Your task to perform on an android device: toggle priority inbox in the gmail app Image 0: 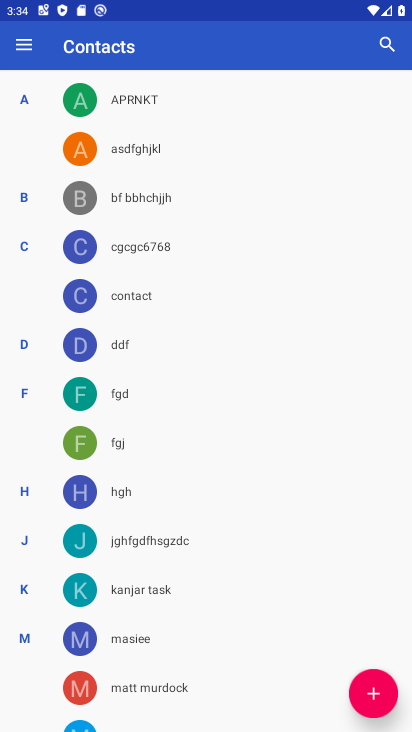
Step 0: press home button
Your task to perform on an android device: toggle priority inbox in the gmail app Image 1: 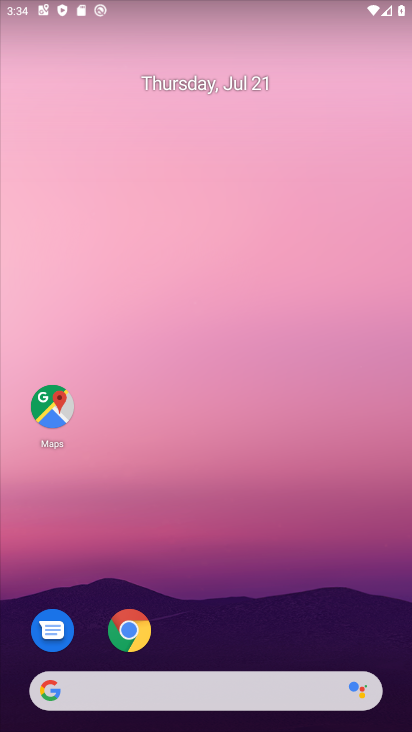
Step 1: drag from (223, 668) to (211, 101)
Your task to perform on an android device: toggle priority inbox in the gmail app Image 2: 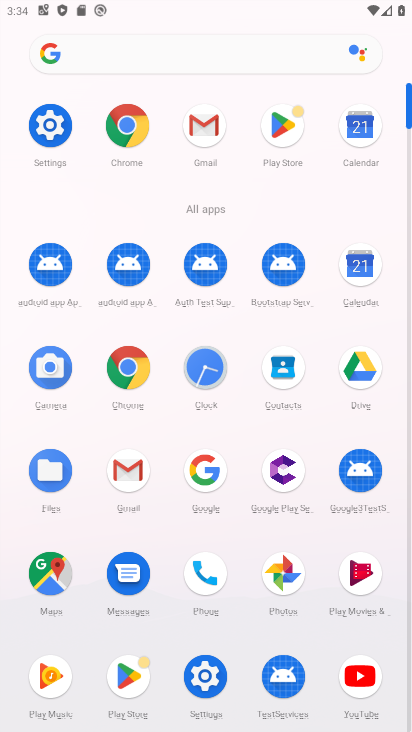
Step 2: click (138, 465)
Your task to perform on an android device: toggle priority inbox in the gmail app Image 3: 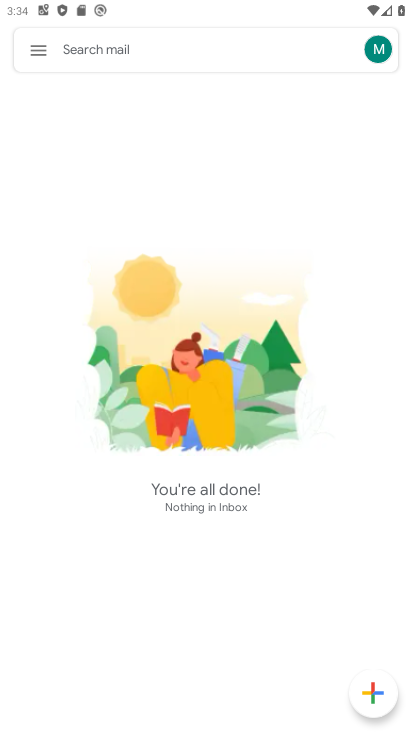
Step 3: click (33, 46)
Your task to perform on an android device: toggle priority inbox in the gmail app Image 4: 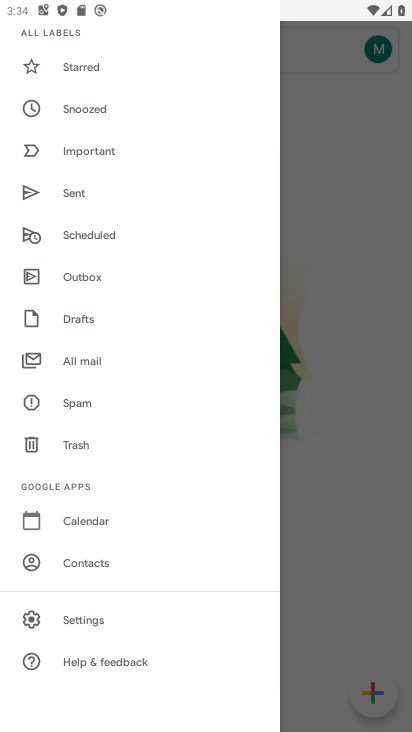
Step 4: click (71, 615)
Your task to perform on an android device: toggle priority inbox in the gmail app Image 5: 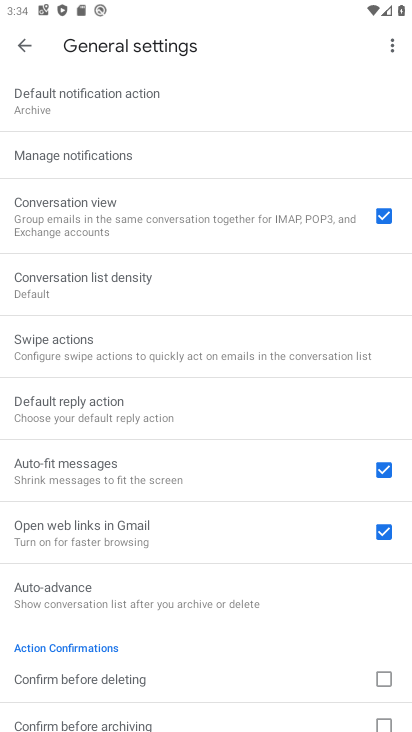
Step 5: drag from (154, 441) to (136, 107)
Your task to perform on an android device: toggle priority inbox in the gmail app Image 6: 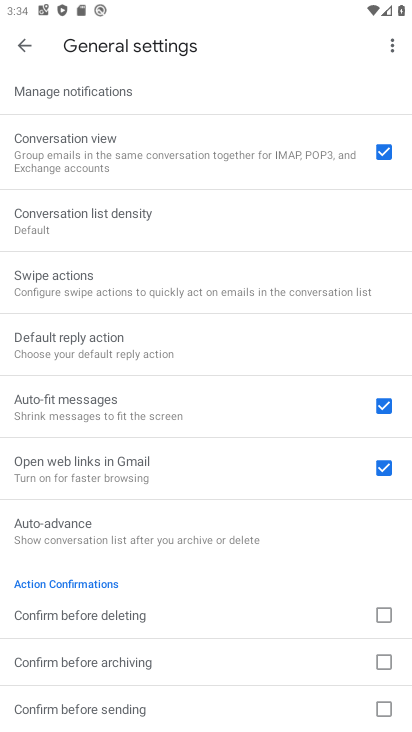
Step 6: click (20, 41)
Your task to perform on an android device: toggle priority inbox in the gmail app Image 7: 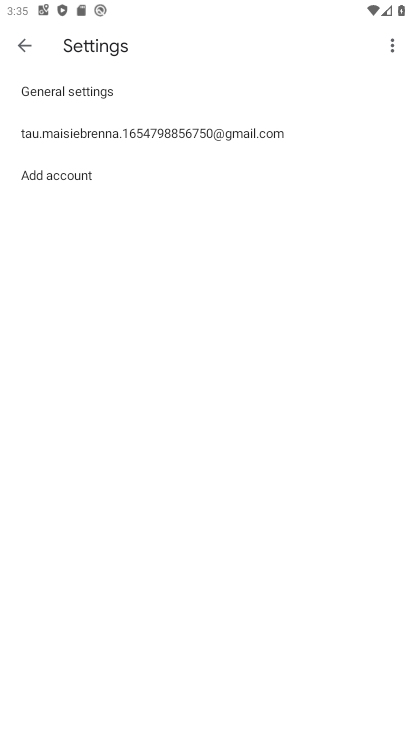
Step 7: click (47, 125)
Your task to perform on an android device: toggle priority inbox in the gmail app Image 8: 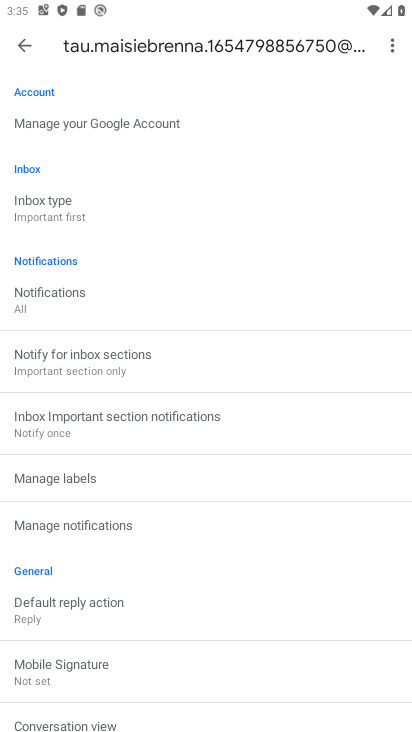
Step 8: click (65, 209)
Your task to perform on an android device: toggle priority inbox in the gmail app Image 9: 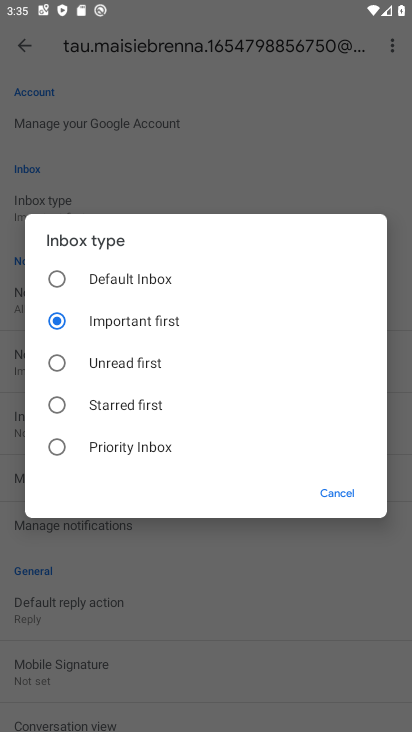
Step 9: click (105, 445)
Your task to perform on an android device: toggle priority inbox in the gmail app Image 10: 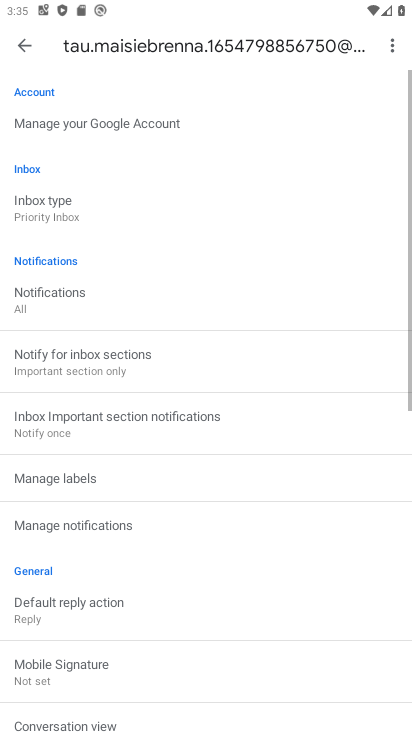
Step 10: task complete